Your task to perform on an android device: Search for pizza restaurants on Maps Image 0: 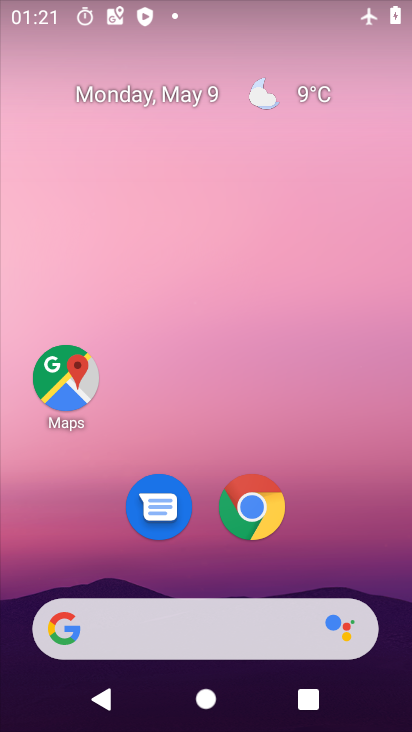
Step 0: drag from (227, 722) to (230, 104)
Your task to perform on an android device: Search for pizza restaurants on Maps Image 1: 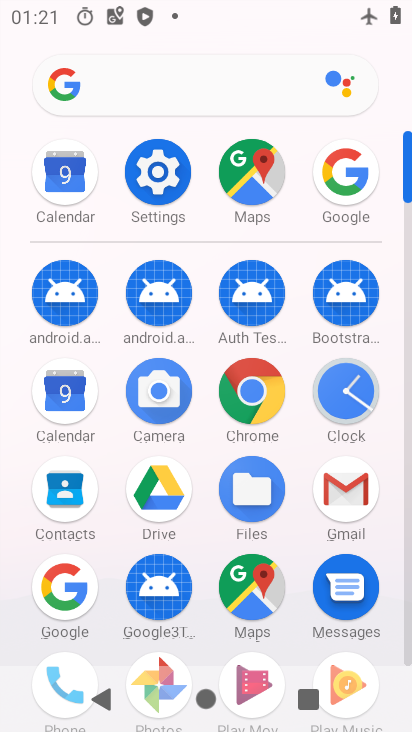
Step 1: click (241, 574)
Your task to perform on an android device: Search for pizza restaurants on Maps Image 2: 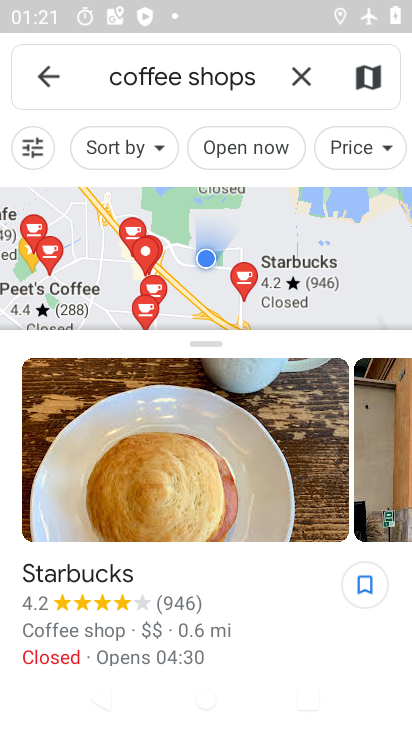
Step 2: click (298, 71)
Your task to perform on an android device: Search for pizza restaurants on Maps Image 3: 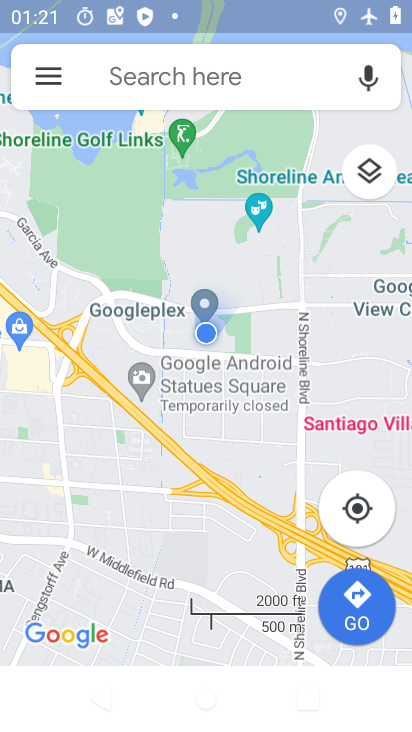
Step 3: click (228, 72)
Your task to perform on an android device: Search for pizza restaurants on Maps Image 4: 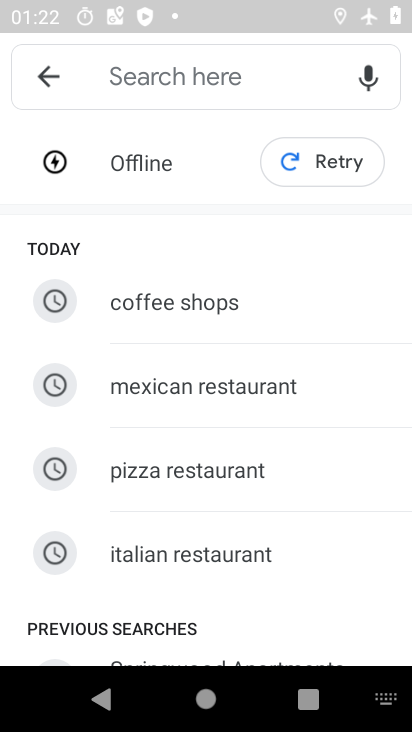
Step 4: click (146, 71)
Your task to perform on an android device: Search for pizza restaurants on Maps Image 5: 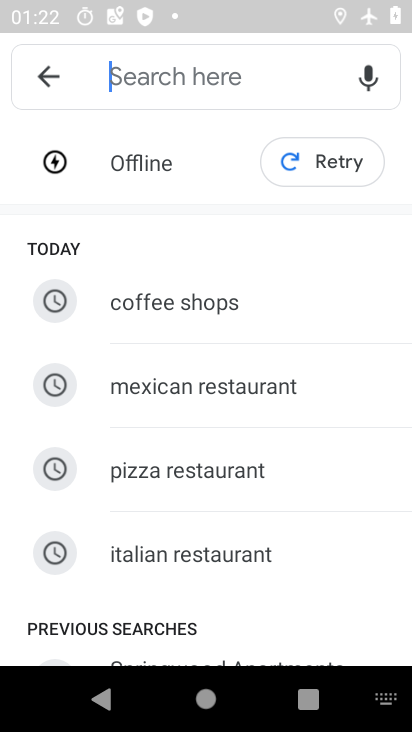
Step 5: type "pizza restaurants"
Your task to perform on an android device: Search for pizza restaurants on Maps Image 6: 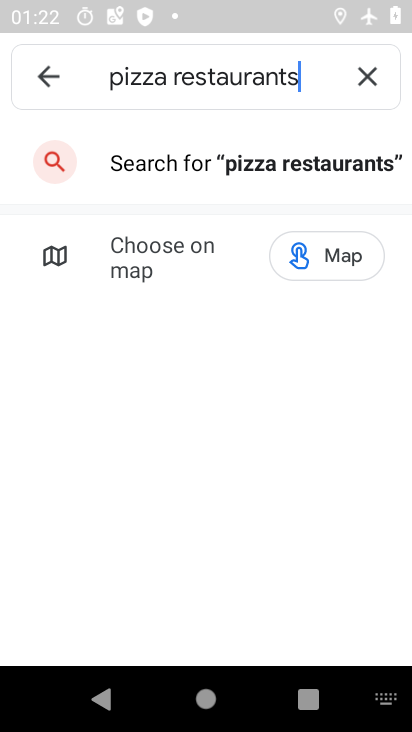
Step 6: click (309, 151)
Your task to perform on an android device: Search for pizza restaurants on Maps Image 7: 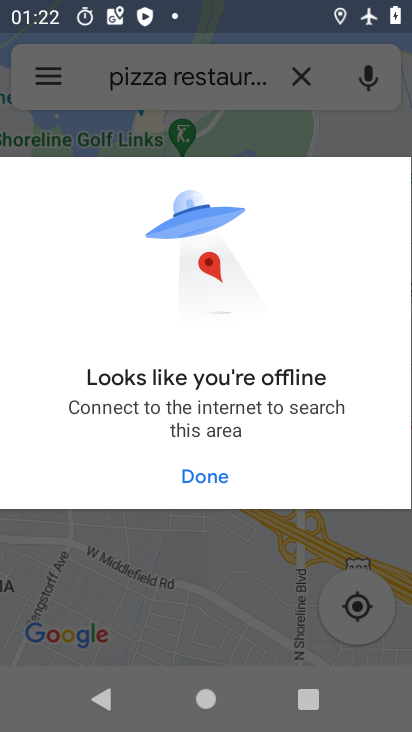
Step 7: task complete